Your task to perform on an android device: Open Google Maps Image 0: 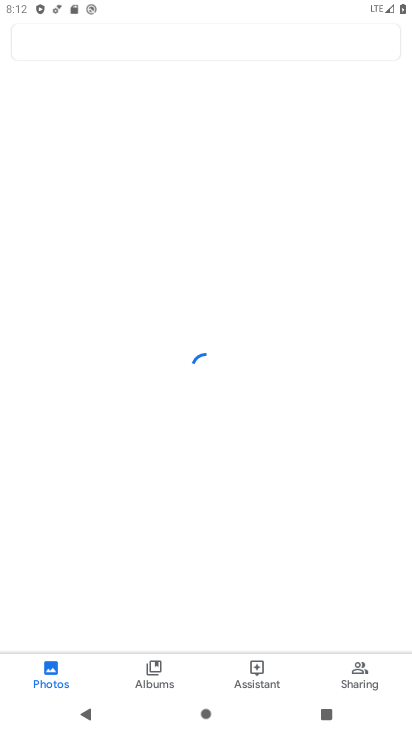
Step 0: press home button
Your task to perform on an android device: Open Google Maps Image 1: 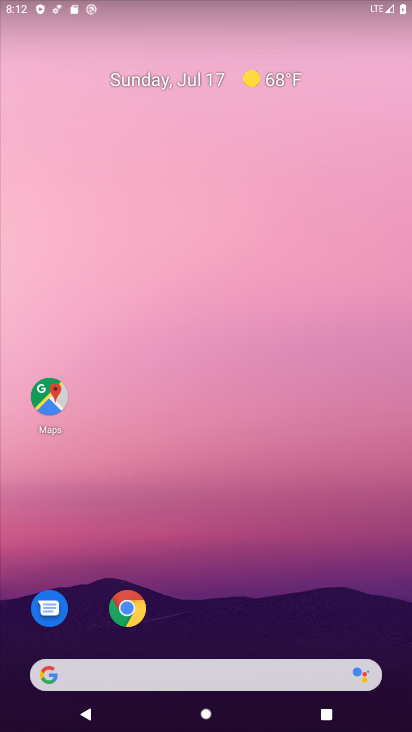
Step 1: click (44, 405)
Your task to perform on an android device: Open Google Maps Image 2: 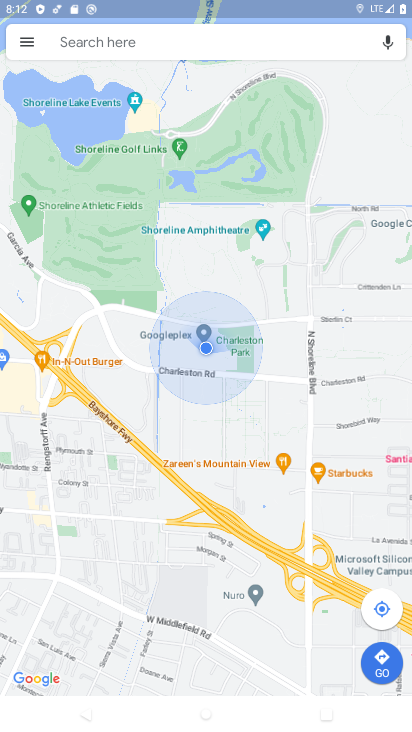
Step 2: task complete